Your task to perform on an android device: Open Reddit.com Image 0: 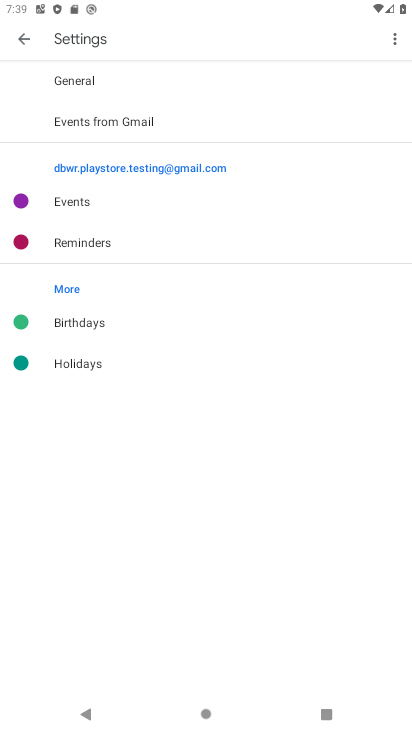
Step 0: press home button
Your task to perform on an android device: Open Reddit.com Image 1: 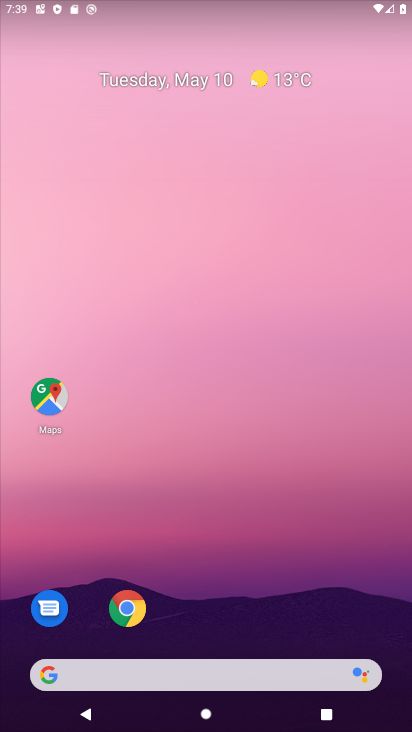
Step 1: click (119, 626)
Your task to perform on an android device: Open Reddit.com Image 2: 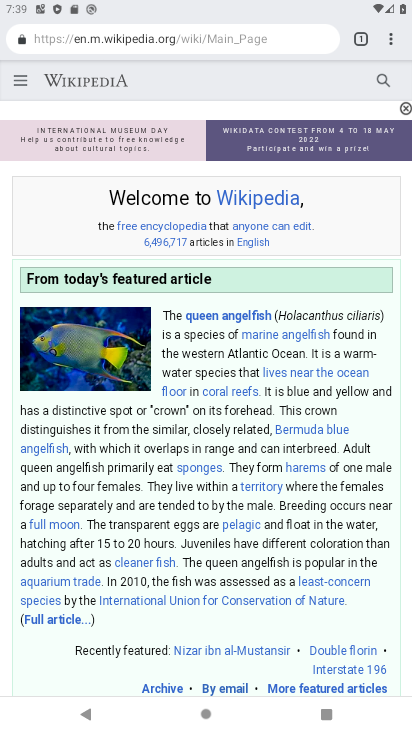
Step 2: click (228, 40)
Your task to perform on an android device: Open Reddit.com Image 3: 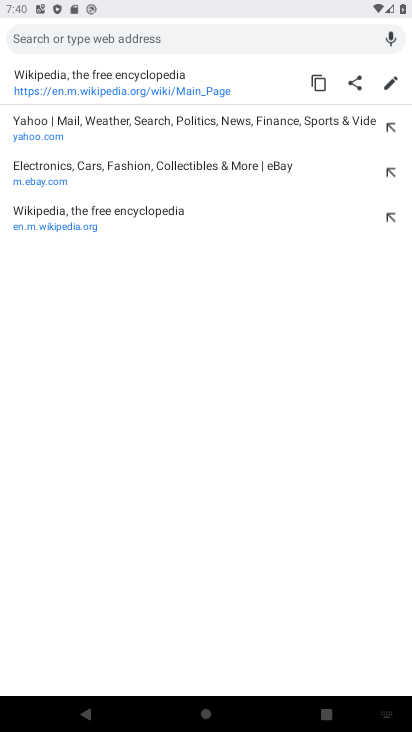
Step 3: type "www.reddit.com"
Your task to perform on an android device: Open Reddit.com Image 4: 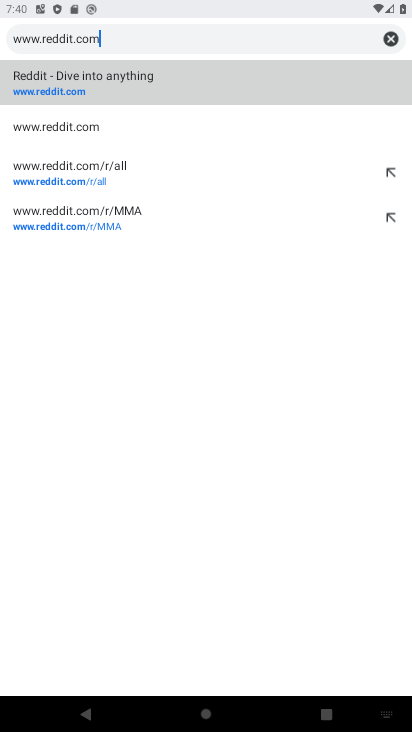
Step 4: click (69, 86)
Your task to perform on an android device: Open Reddit.com Image 5: 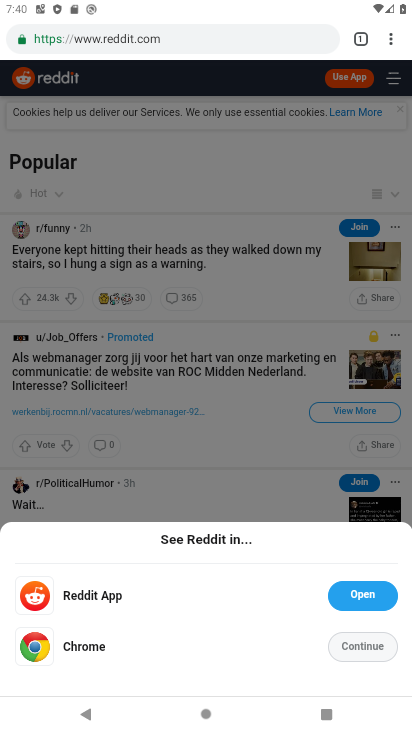
Step 5: click (370, 642)
Your task to perform on an android device: Open Reddit.com Image 6: 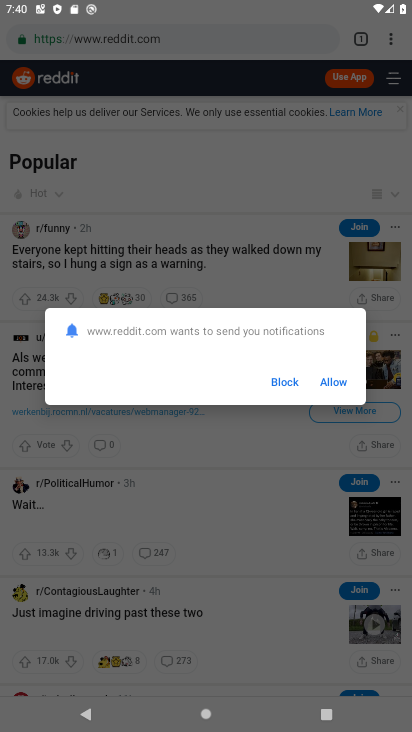
Step 6: task complete